Your task to perform on an android device: What's the weather? Image 0: 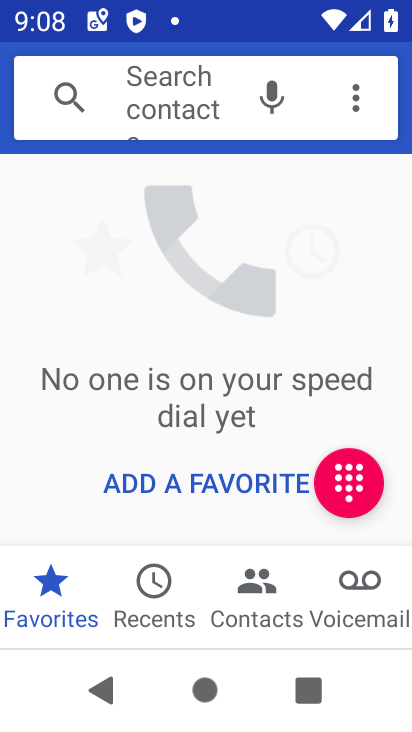
Step 0: press home button
Your task to perform on an android device: What's the weather? Image 1: 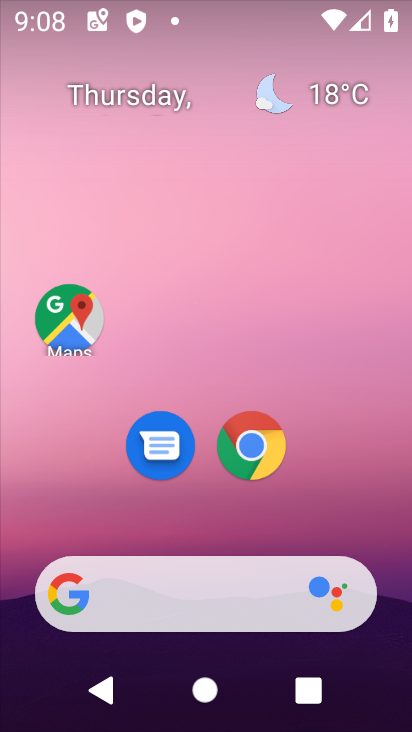
Step 1: click (222, 598)
Your task to perform on an android device: What's the weather? Image 2: 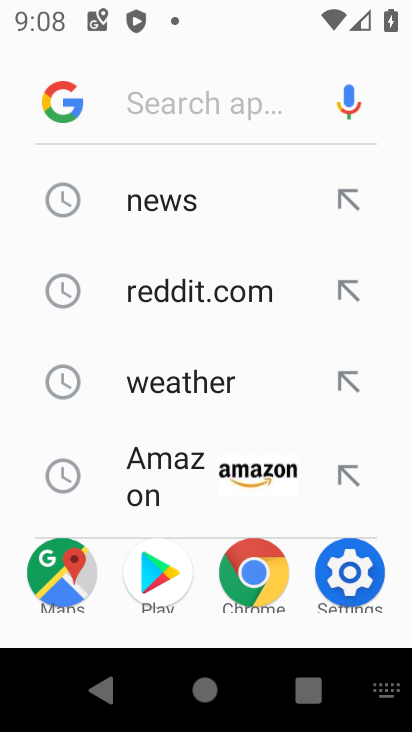
Step 2: click (216, 384)
Your task to perform on an android device: What's the weather? Image 3: 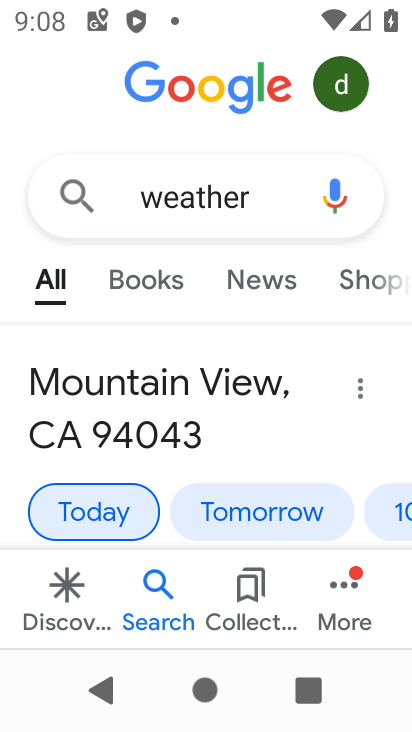
Step 3: task complete